Your task to perform on an android device: Open wifi settings Image 0: 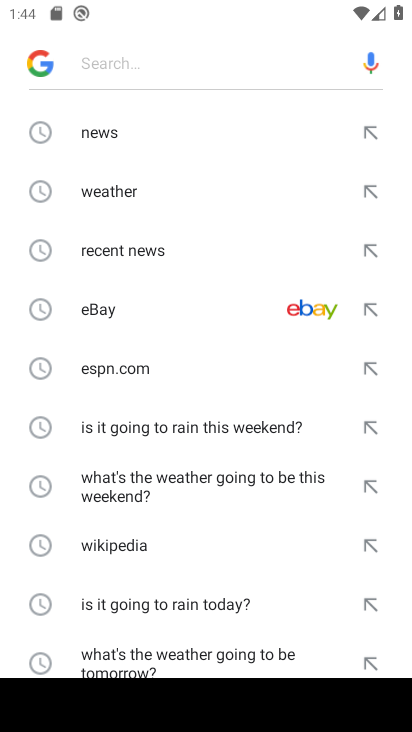
Step 0: press back button
Your task to perform on an android device: Open wifi settings Image 1: 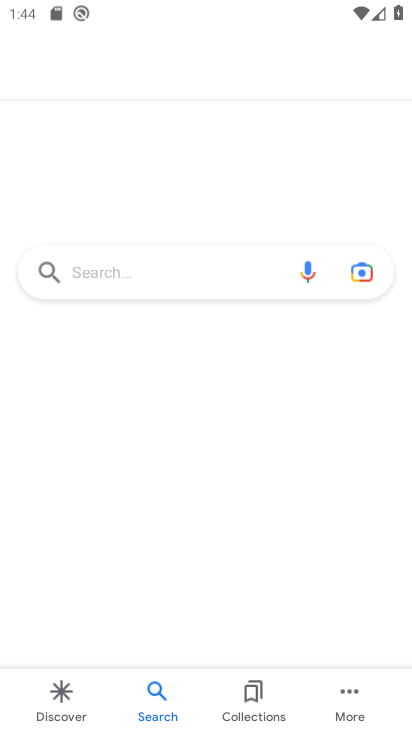
Step 1: press home button
Your task to perform on an android device: Open wifi settings Image 2: 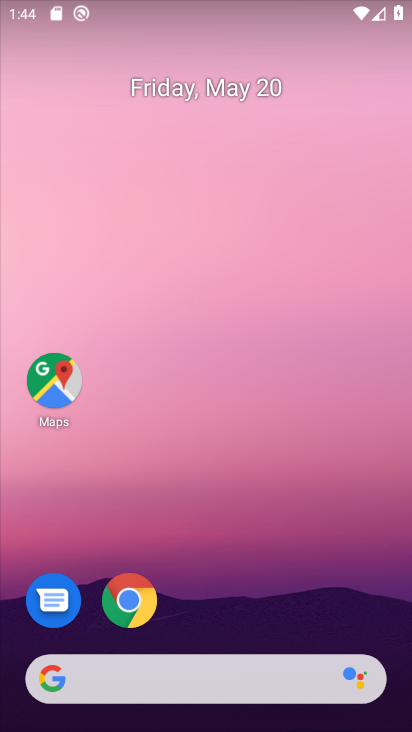
Step 2: drag from (217, 598) to (265, 90)
Your task to perform on an android device: Open wifi settings Image 3: 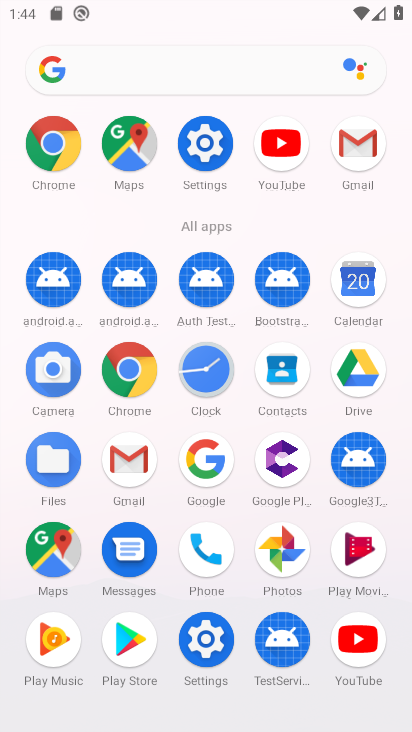
Step 3: click (207, 656)
Your task to perform on an android device: Open wifi settings Image 4: 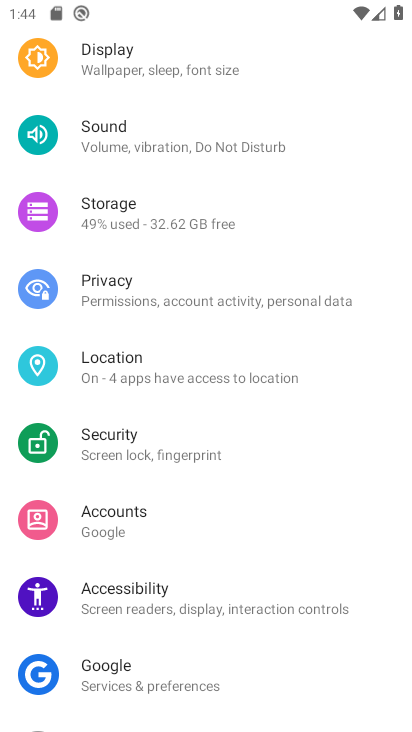
Step 4: drag from (225, 298) to (215, 589)
Your task to perform on an android device: Open wifi settings Image 5: 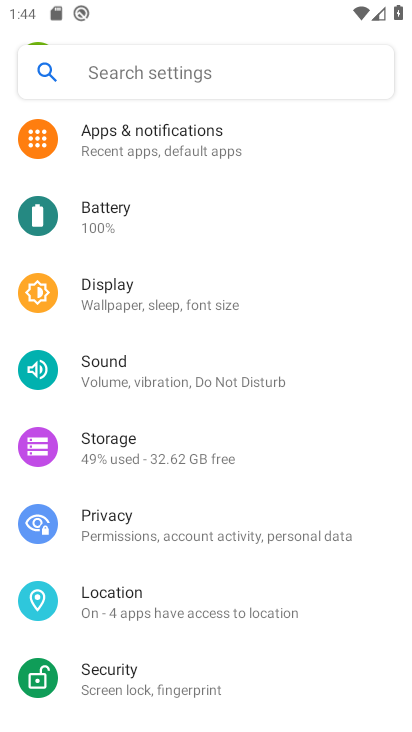
Step 5: drag from (248, 176) to (239, 584)
Your task to perform on an android device: Open wifi settings Image 6: 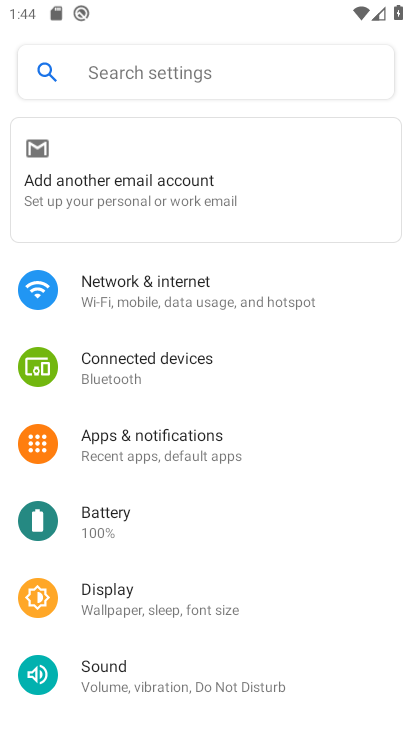
Step 6: click (184, 305)
Your task to perform on an android device: Open wifi settings Image 7: 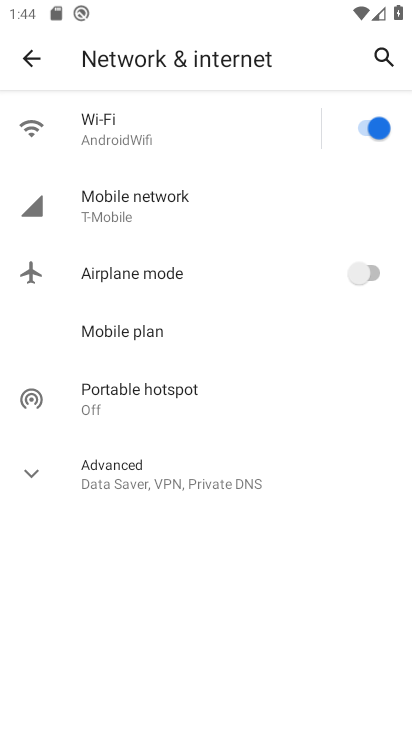
Step 7: click (162, 118)
Your task to perform on an android device: Open wifi settings Image 8: 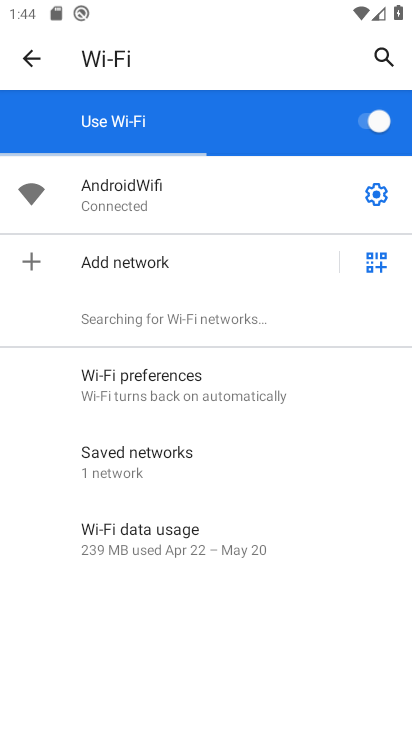
Step 8: task complete